Your task to perform on an android device: Open calendar and show me the fourth week of next month Image 0: 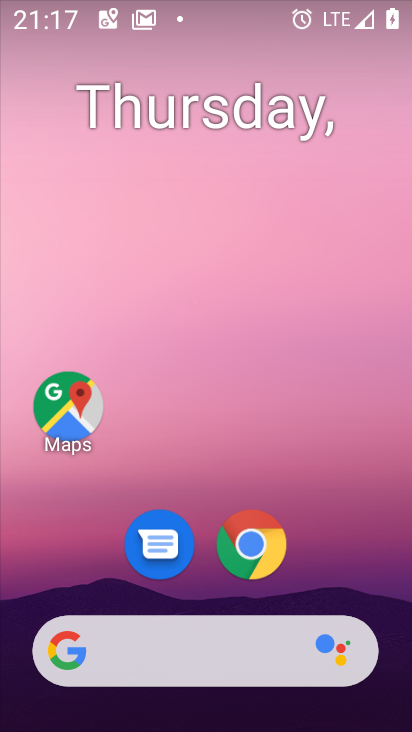
Step 0: click (140, 110)
Your task to perform on an android device: Open calendar and show me the fourth week of next month Image 1: 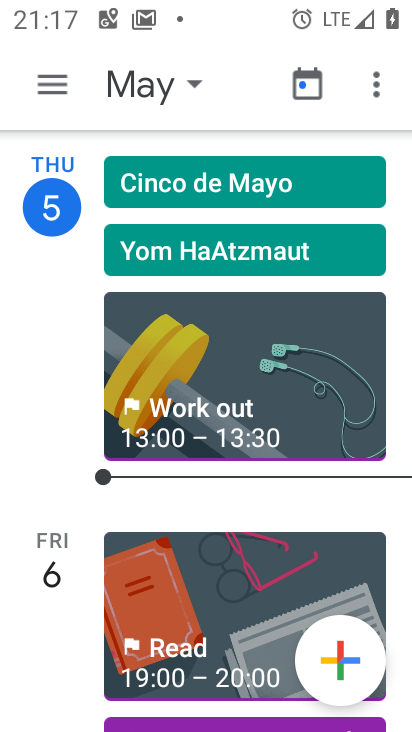
Step 1: click (153, 101)
Your task to perform on an android device: Open calendar and show me the fourth week of next month Image 2: 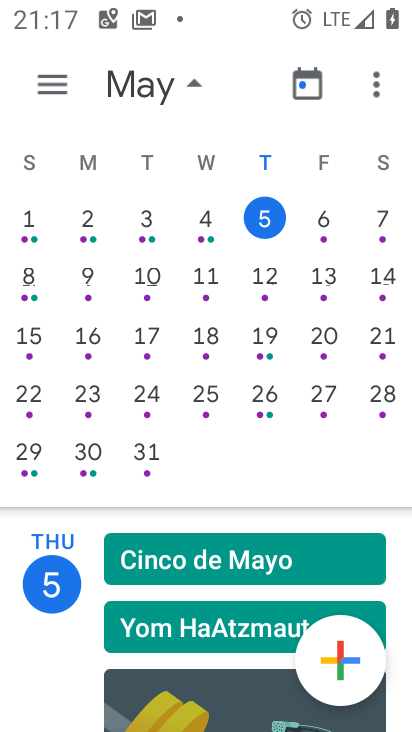
Step 2: drag from (359, 466) to (8, 355)
Your task to perform on an android device: Open calendar and show me the fourth week of next month Image 3: 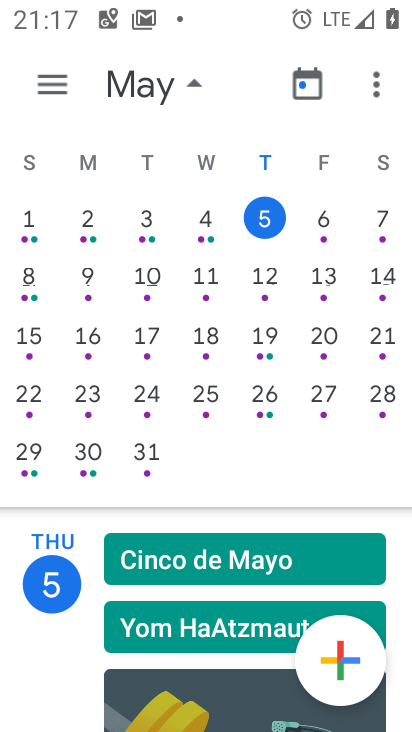
Step 3: drag from (343, 467) to (133, 454)
Your task to perform on an android device: Open calendar and show me the fourth week of next month Image 4: 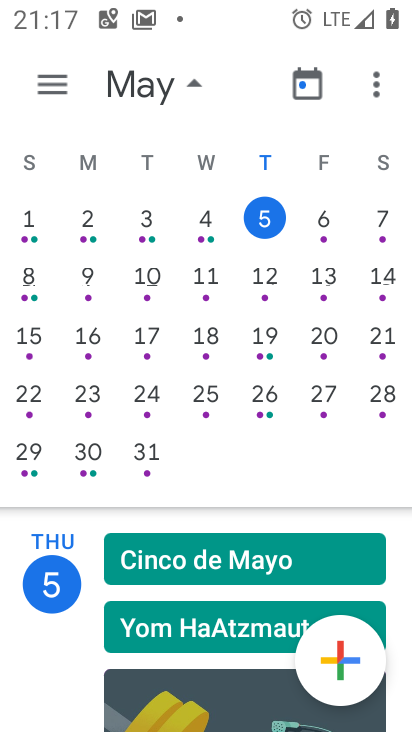
Step 4: drag from (365, 464) to (29, 540)
Your task to perform on an android device: Open calendar and show me the fourth week of next month Image 5: 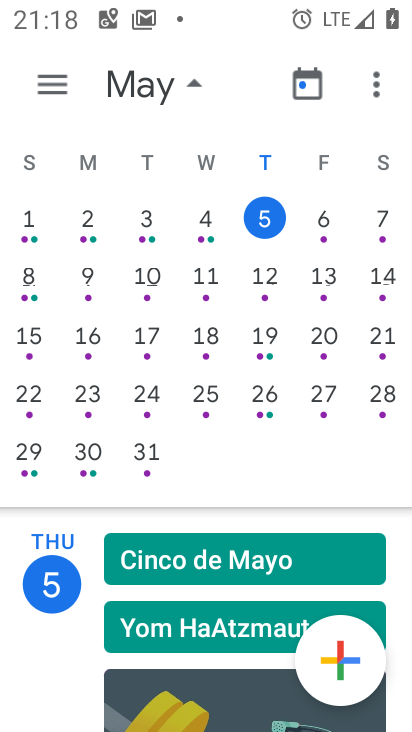
Step 5: drag from (387, 483) to (46, 418)
Your task to perform on an android device: Open calendar and show me the fourth week of next month Image 6: 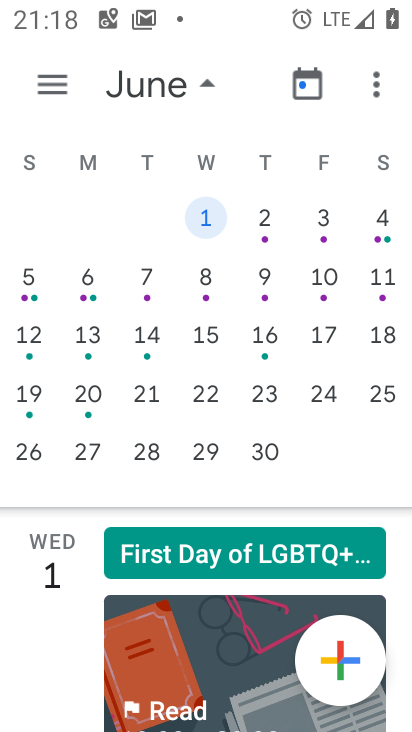
Step 6: click (211, 394)
Your task to perform on an android device: Open calendar and show me the fourth week of next month Image 7: 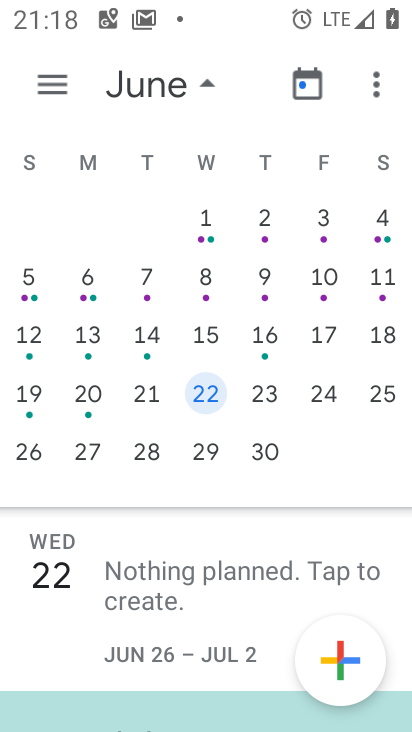
Step 7: task complete